Your task to perform on an android device: turn on improve location accuracy Image 0: 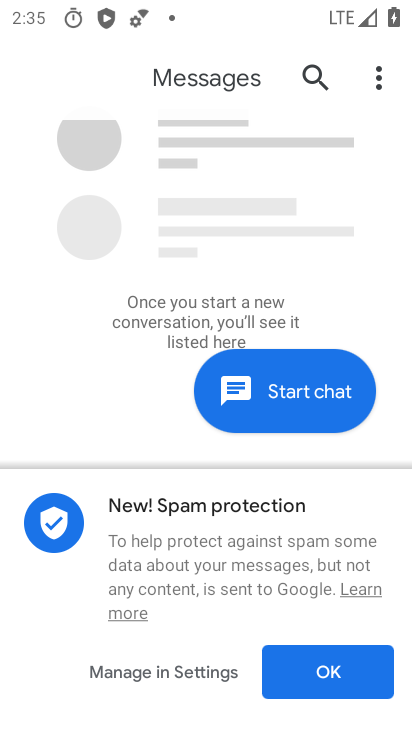
Step 0: press home button
Your task to perform on an android device: turn on improve location accuracy Image 1: 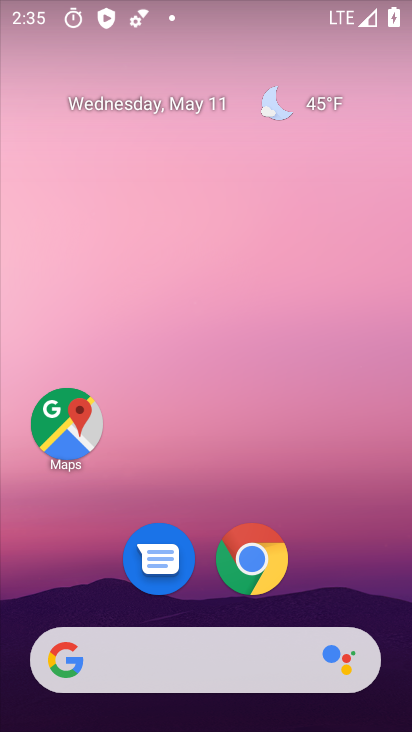
Step 1: drag from (316, 579) to (260, 142)
Your task to perform on an android device: turn on improve location accuracy Image 2: 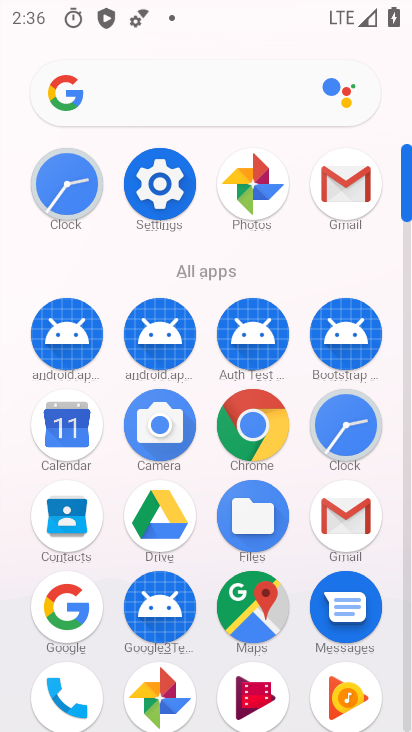
Step 2: click (164, 180)
Your task to perform on an android device: turn on improve location accuracy Image 3: 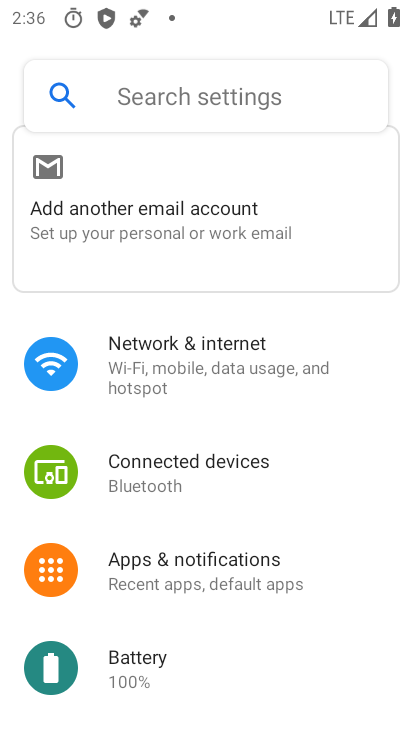
Step 3: drag from (256, 563) to (215, 284)
Your task to perform on an android device: turn on improve location accuracy Image 4: 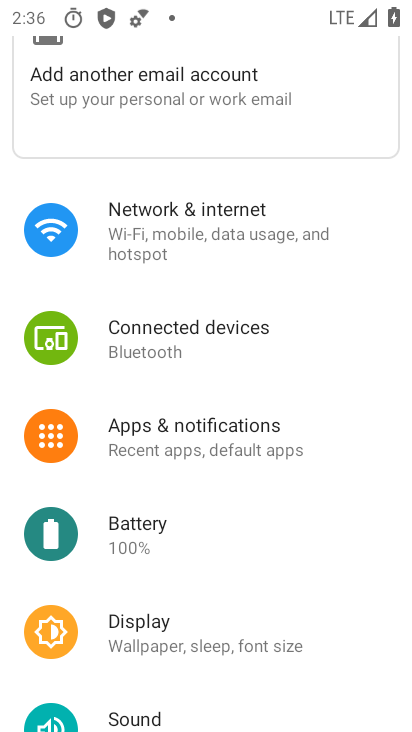
Step 4: drag from (243, 608) to (226, 290)
Your task to perform on an android device: turn on improve location accuracy Image 5: 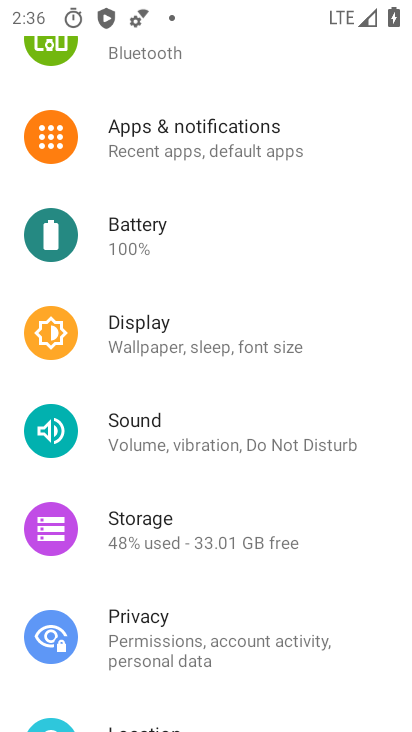
Step 5: drag from (186, 664) to (196, 277)
Your task to perform on an android device: turn on improve location accuracy Image 6: 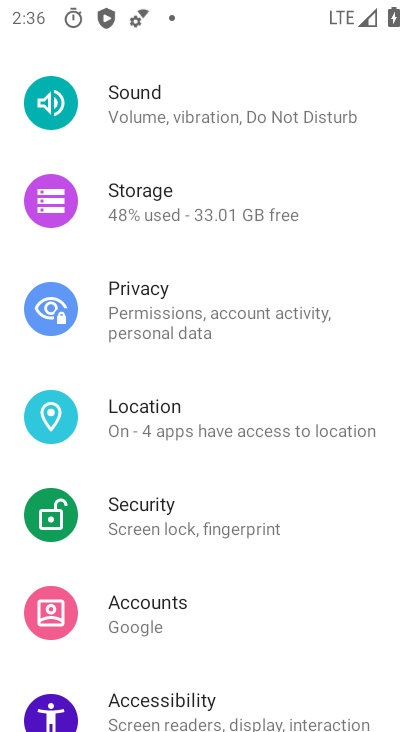
Step 6: click (182, 410)
Your task to perform on an android device: turn on improve location accuracy Image 7: 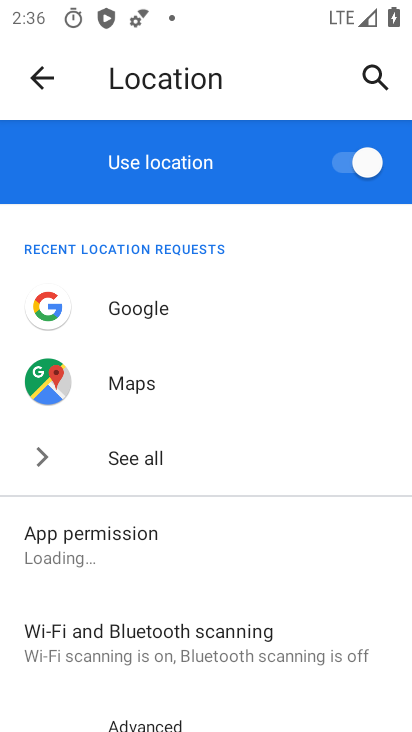
Step 7: task complete